Your task to perform on an android device: Search for Italian restaurants on Maps Image 0: 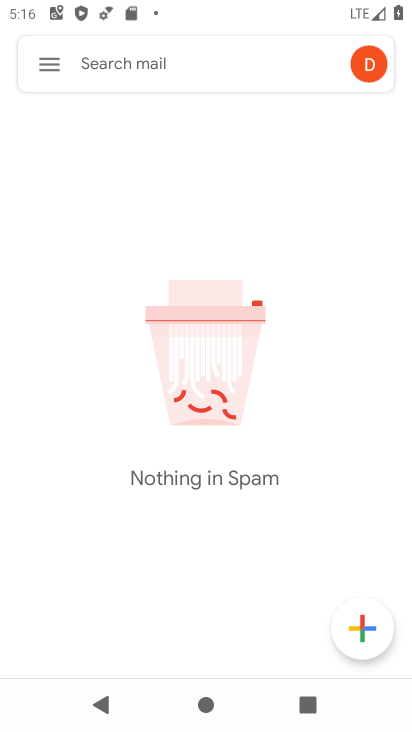
Step 0: press home button
Your task to perform on an android device: Search for Italian restaurants on Maps Image 1: 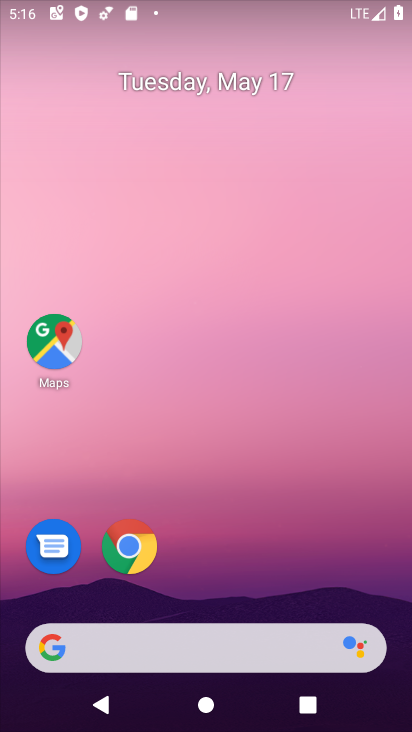
Step 1: click (54, 343)
Your task to perform on an android device: Search for Italian restaurants on Maps Image 2: 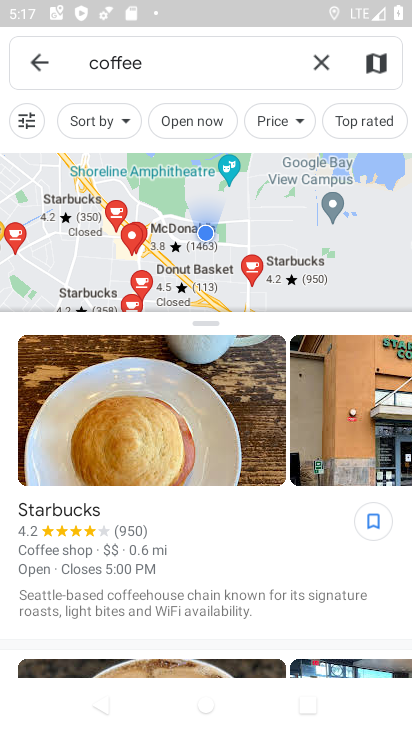
Step 2: click (328, 67)
Your task to perform on an android device: Search for Italian restaurants on Maps Image 3: 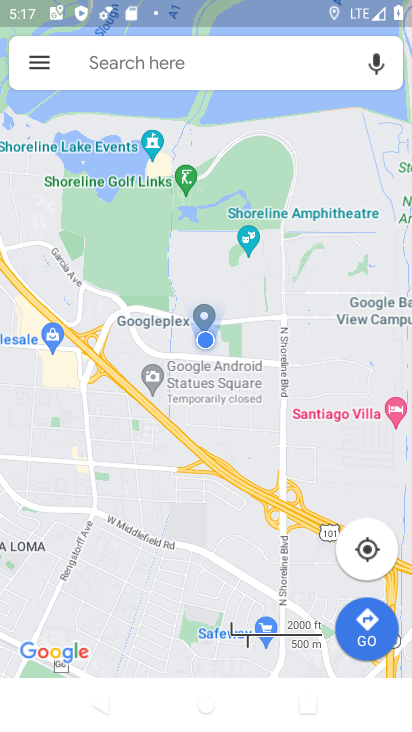
Step 3: click (170, 66)
Your task to perform on an android device: Search for Italian restaurants on Maps Image 4: 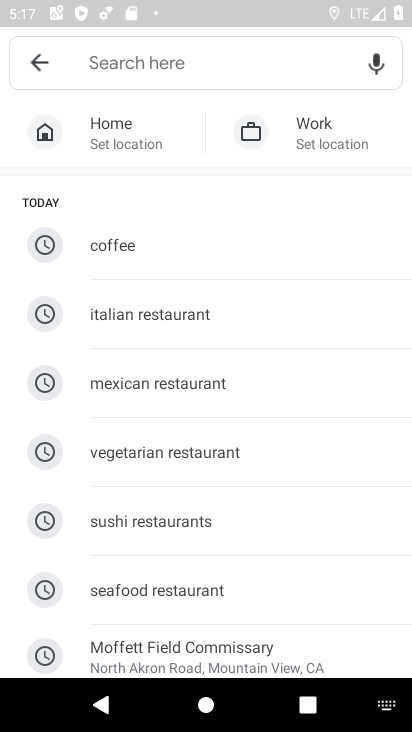
Step 4: click (173, 317)
Your task to perform on an android device: Search for Italian restaurants on Maps Image 5: 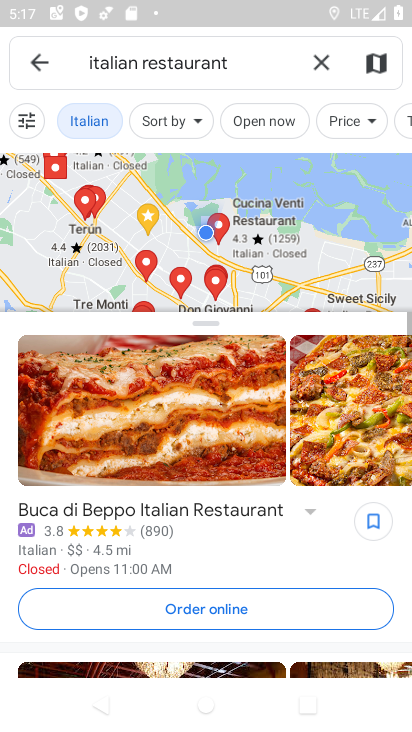
Step 5: task complete